Your task to perform on an android device: remove spam from my inbox in the gmail app Image 0: 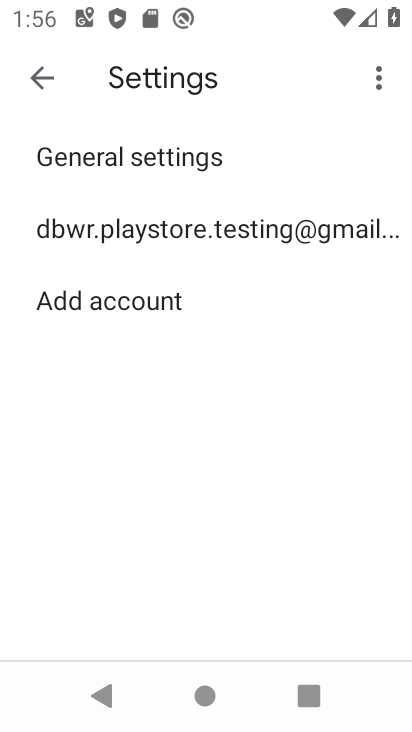
Step 0: press home button
Your task to perform on an android device: remove spam from my inbox in the gmail app Image 1: 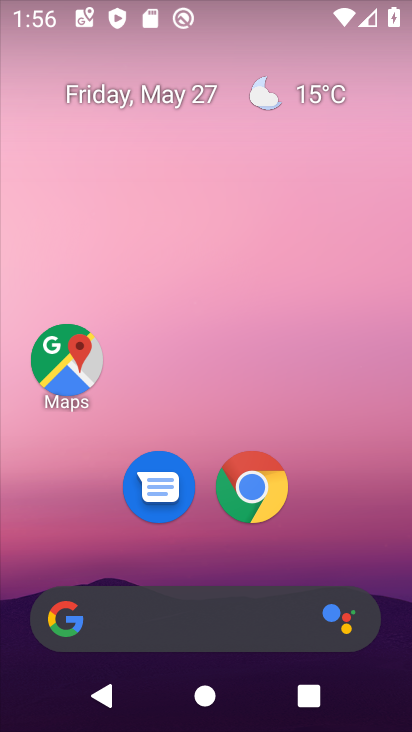
Step 1: drag from (181, 580) to (212, 69)
Your task to perform on an android device: remove spam from my inbox in the gmail app Image 2: 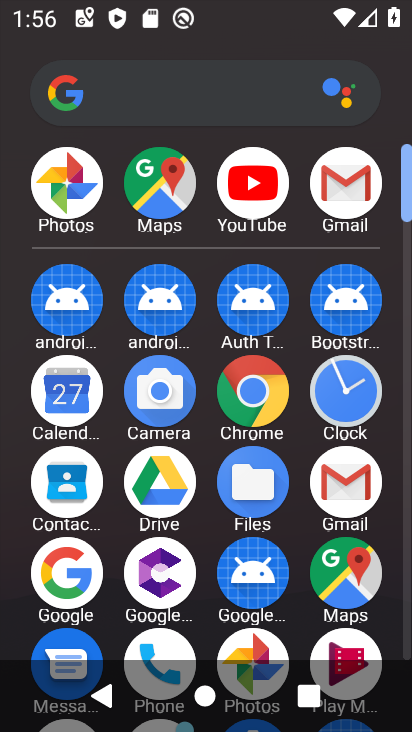
Step 2: click (330, 174)
Your task to perform on an android device: remove spam from my inbox in the gmail app Image 3: 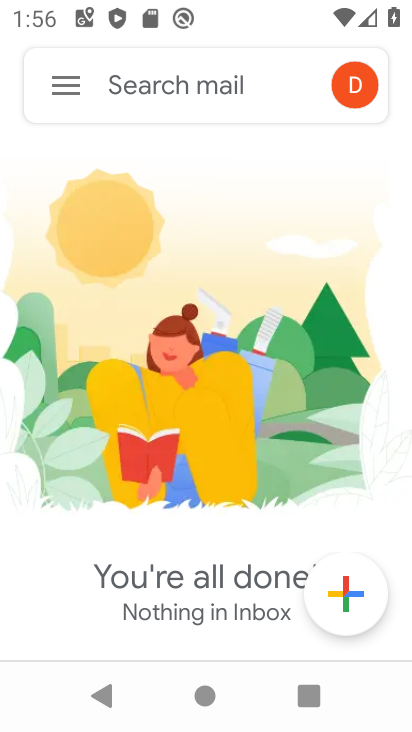
Step 3: click (66, 80)
Your task to perform on an android device: remove spam from my inbox in the gmail app Image 4: 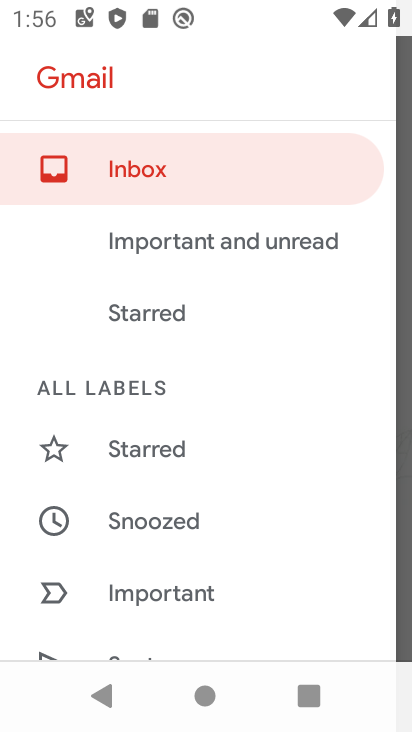
Step 4: drag from (128, 572) to (273, 16)
Your task to perform on an android device: remove spam from my inbox in the gmail app Image 5: 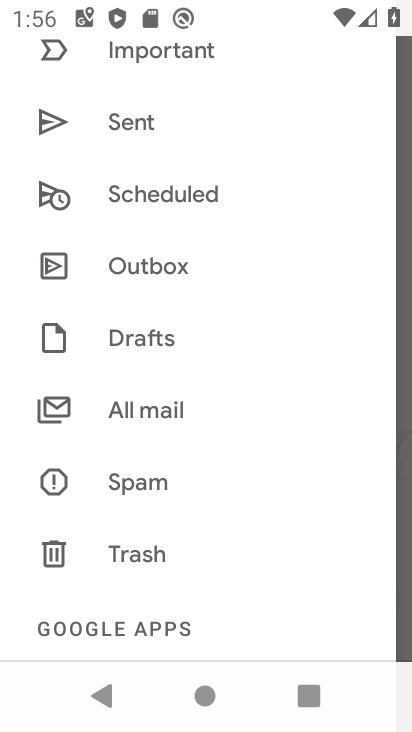
Step 5: click (132, 484)
Your task to perform on an android device: remove spam from my inbox in the gmail app Image 6: 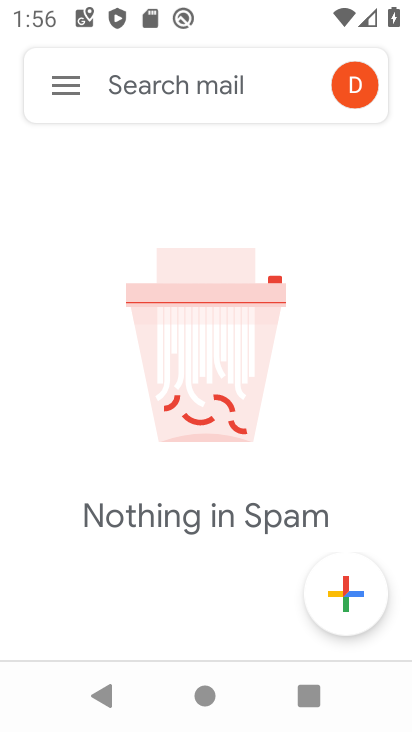
Step 6: task complete